Your task to perform on an android device: move an email to a new category in the gmail app Image 0: 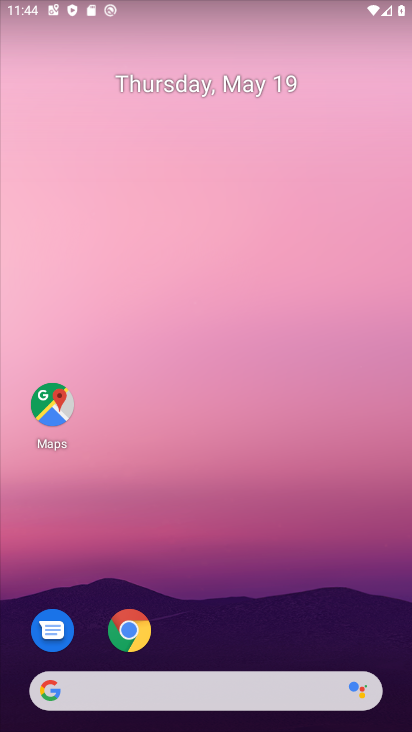
Step 0: drag from (292, 610) to (220, 45)
Your task to perform on an android device: move an email to a new category in the gmail app Image 1: 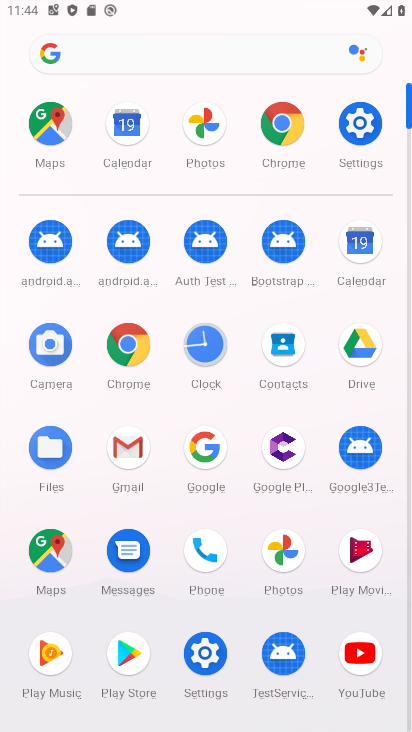
Step 1: click (130, 449)
Your task to perform on an android device: move an email to a new category in the gmail app Image 2: 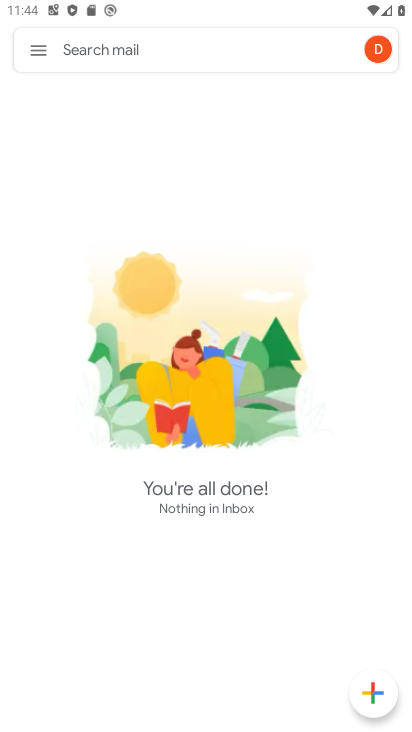
Step 2: click (39, 46)
Your task to perform on an android device: move an email to a new category in the gmail app Image 3: 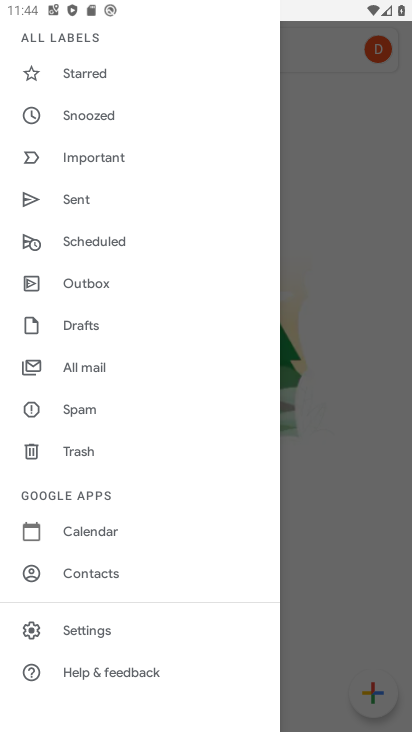
Step 3: drag from (53, 199) to (69, 284)
Your task to perform on an android device: move an email to a new category in the gmail app Image 4: 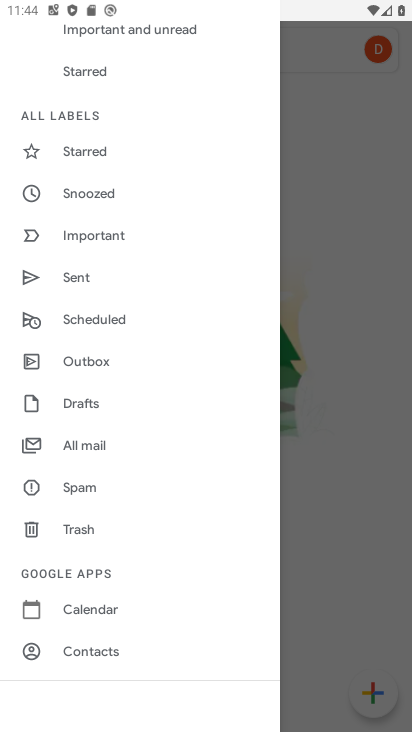
Step 4: drag from (81, 191) to (104, 295)
Your task to perform on an android device: move an email to a new category in the gmail app Image 5: 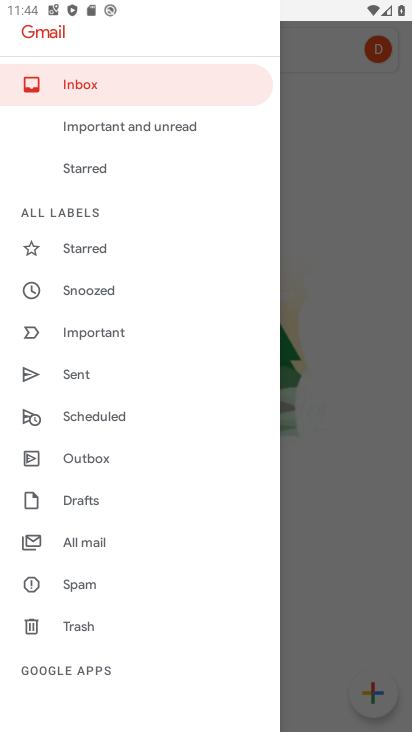
Step 5: drag from (93, 431) to (118, 357)
Your task to perform on an android device: move an email to a new category in the gmail app Image 6: 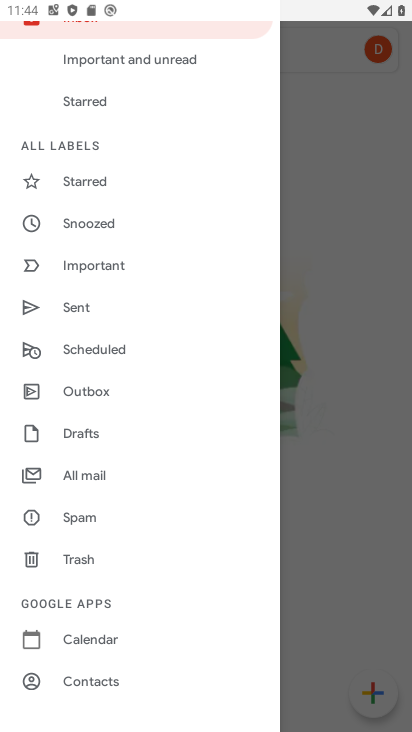
Step 6: click (102, 479)
Your task to perform on an android device: move an email to a new category in the gmail app Image 7: 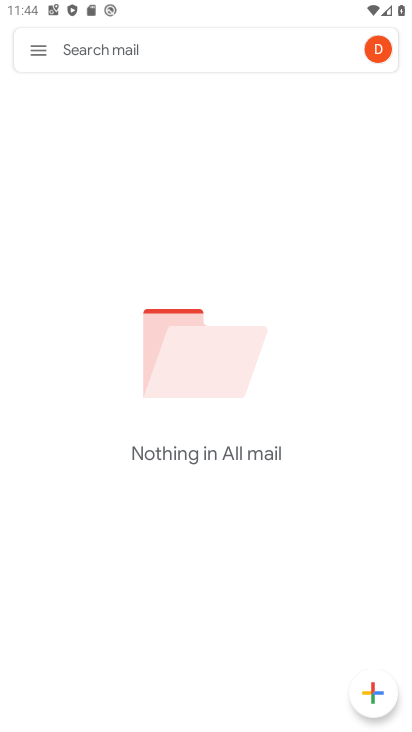
Step 7: task complete